Your task to perform on an android device: add a label to a message in the gmail app Image 0: 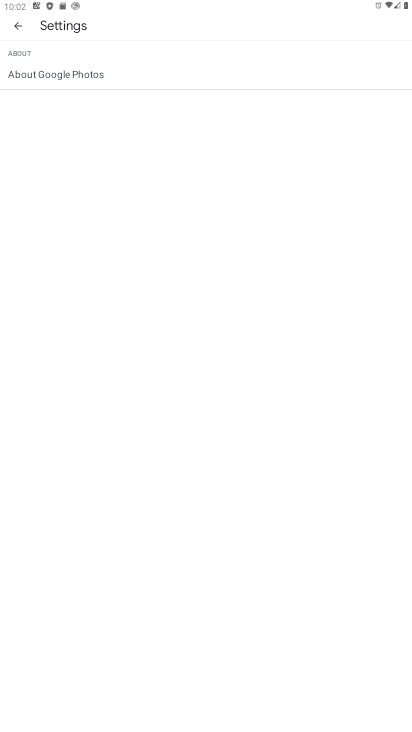
Step 0: press home button
Your task to perform on an android device: add a label to a message in the gmail app Image 1: 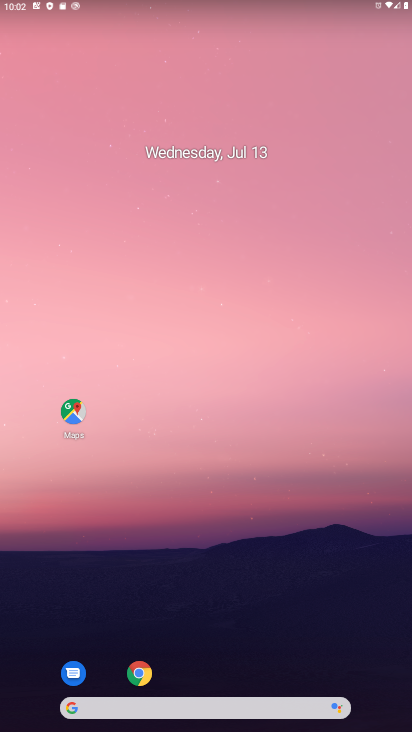
Step 1: drag from (201, 662) to (313, 57)
Your task to perform on an android device: add a label to a message in the gmail app Image 2: 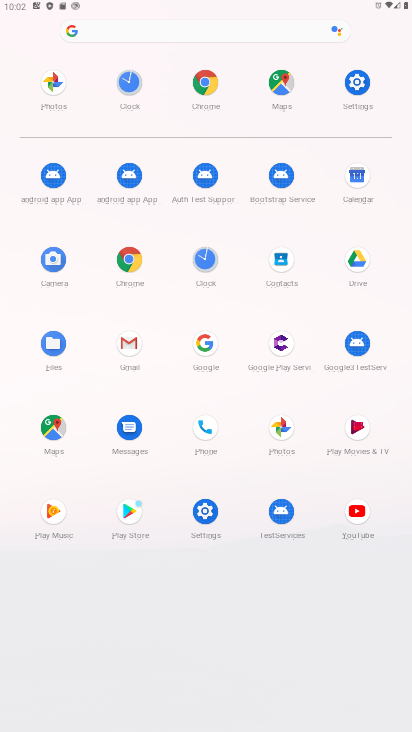
Step 2: click (131, 340)
Your task to perform on an android device: add a label to a message in the gmail app Image 3: 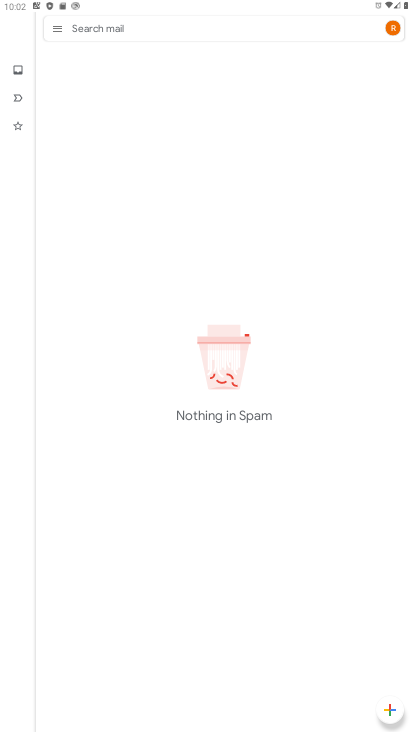
Step 3: click (51, 29)
Your task to perform on an android device: add a label to a message in the gmail app Image 4: 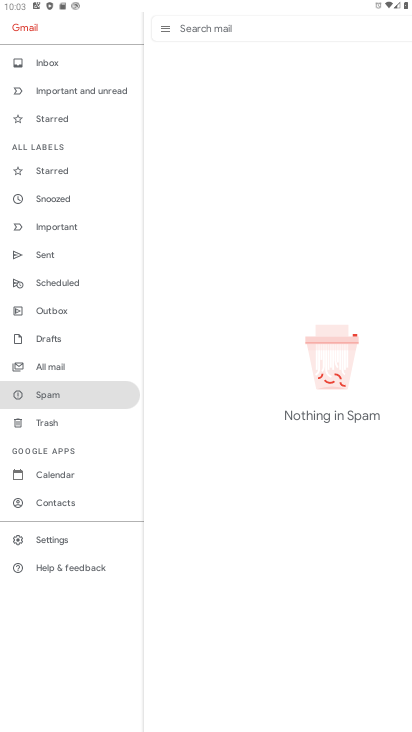
Step 4: click (45, 73)
Your task to perform on an android device: add a label to a message in the gmail app Image 5: 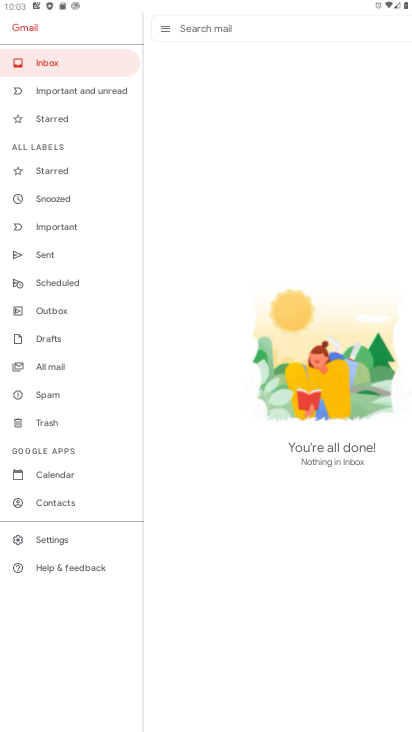
Step 5: task complete